Your task to perform on an android device: delete a single message in the gmail app Image 0: 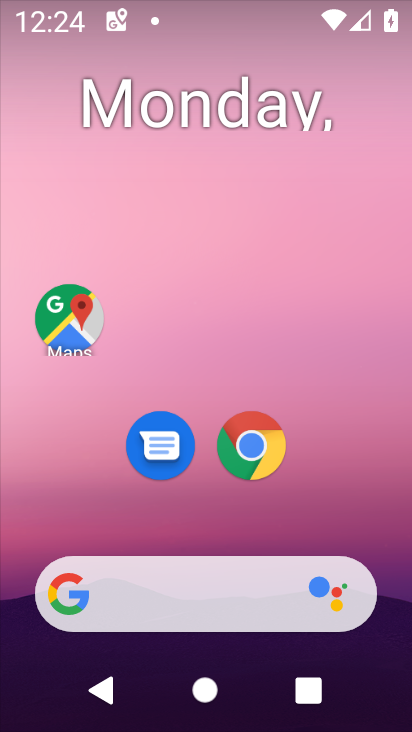
Step 0: drag from (321, 507) to (256, 17)
Your task to perform on an android device: delete a single message in the gmail app Image 1: 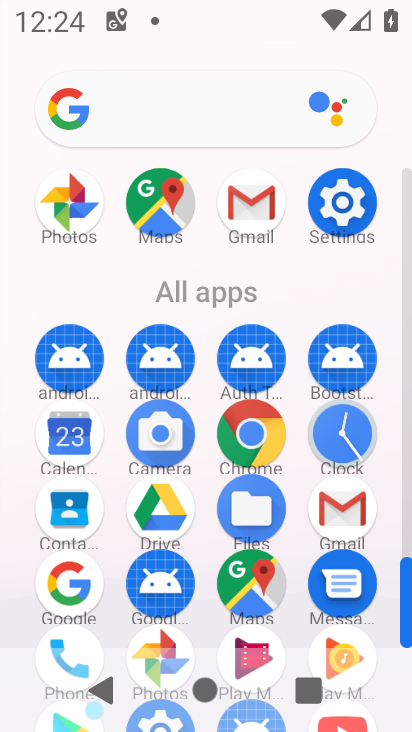
Step 1: click (251, 207)
Your task to perform on an android device: delete a single message in the gmail app Image 2: 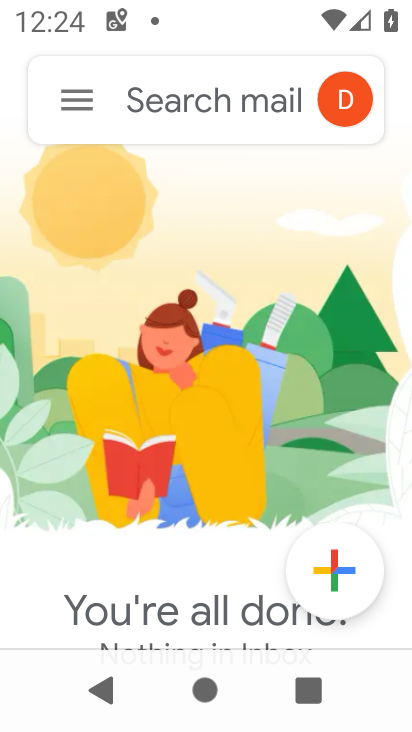
Step 2: click (85, 102)
Your task to perform on an android device: delete a single message in the gmail app Image 3: 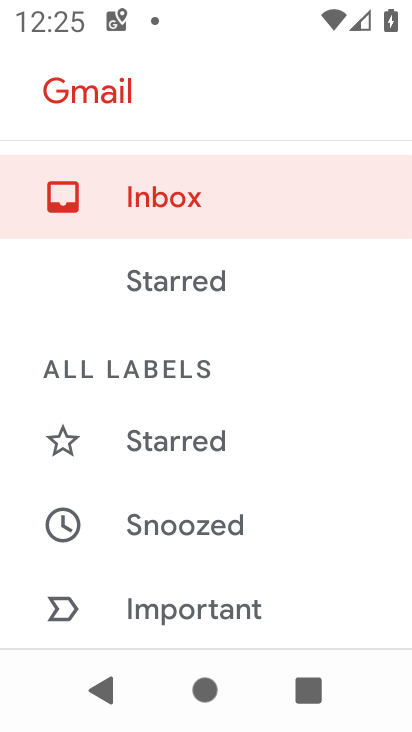
Step 3: drag from (248, 499) to (285, 323)
Your task to perform on an android device: delete a single message in the gmail app Image 4: 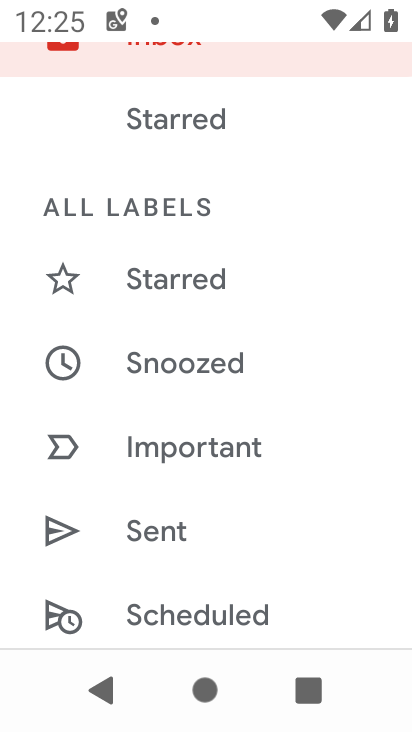
Step 4: drag from (201, 492) to (236, 374)
Your task to perform on an android device: delete a single message in the gmail app Image 5: 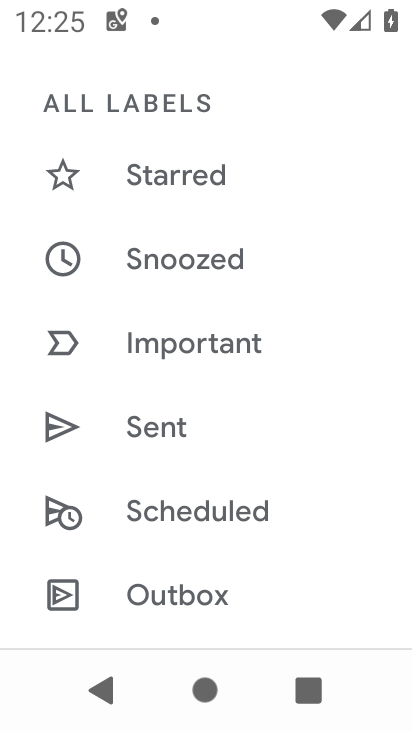
Step 5: drag from (224, 481) to (254, 385)
Your task to perform on an android device: delete a single message in the gmail app Image 6: 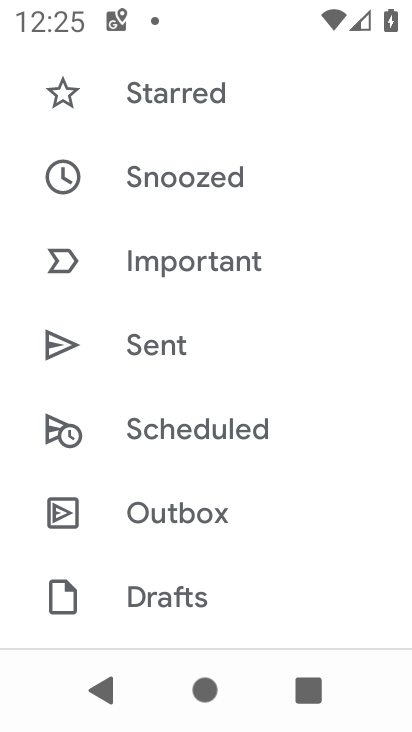
Step 6: drag from (180, 464) to (240, 373)
Your task to perform on an android device: delete a single message in the gmail app Image 7: 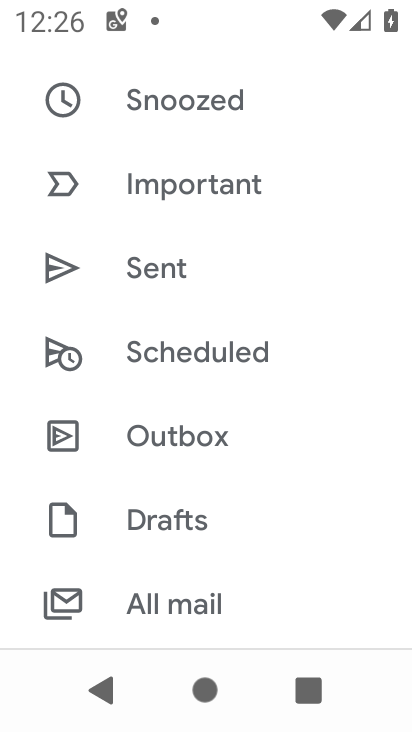
Step 7: drag from (199, 405) to (232, 339)
Your task to perform on an android device: delete a single message in the gmail app Image 8: 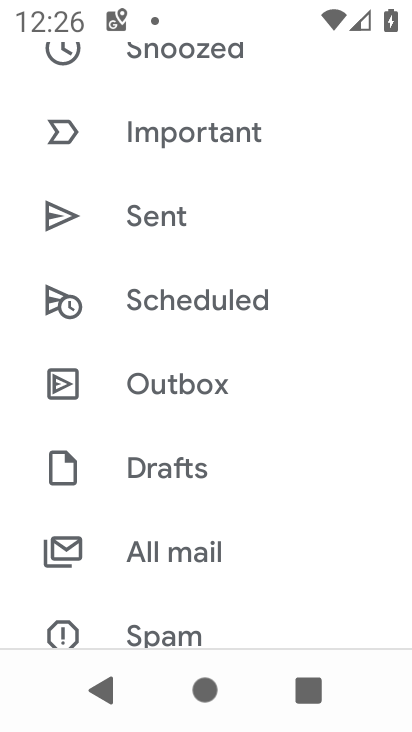
Step 8: drag from (195, 426) to (253, 337)
Your task to perform on an android device: delete a single message in the gmail app Image 9: 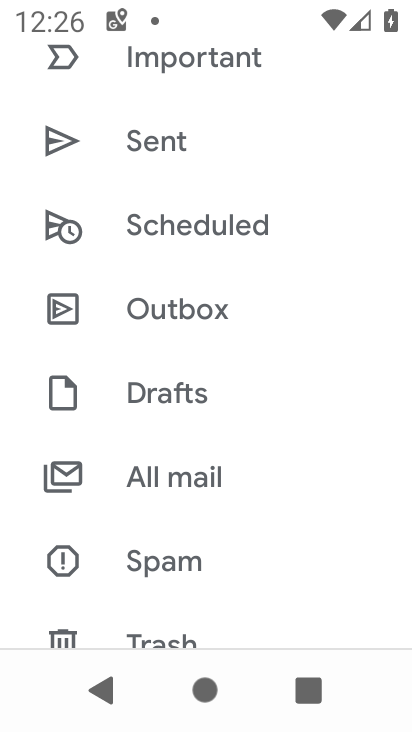
Step 9: drag from (190, 378) to (208, 324)
Your task to perform on an android device: delete a single message in the gmail app Image 10: 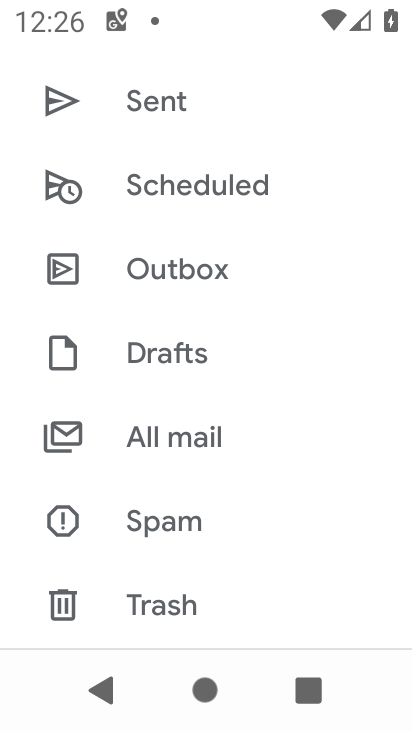
Step 10: drag from (157, 401) to (205, 329)
Your task to perform on an android device: delete a single message in the gmail app Image 11: 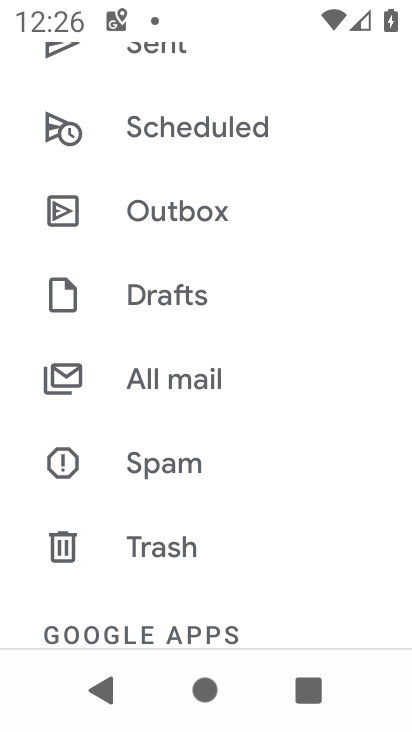
Step 11: drag from (188, 511) to (222, 426)
Your task to perform on an android device: delete a single message in the gmail app Image 12: 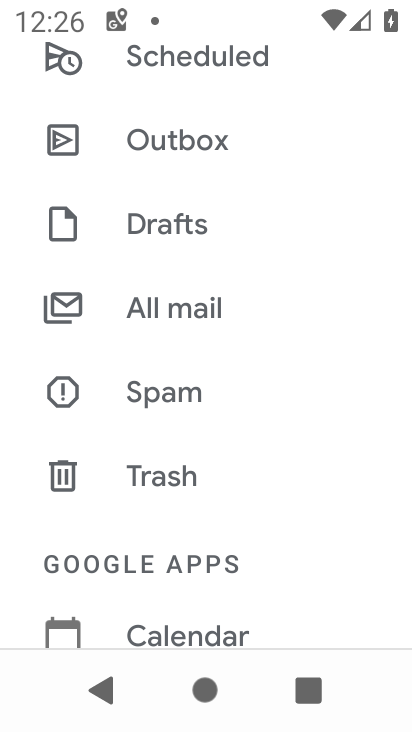
Step 12: drag from (147, 516) to (193, 419)
Your task to perform on an android device: delete a single message in the gmail app Image 13: 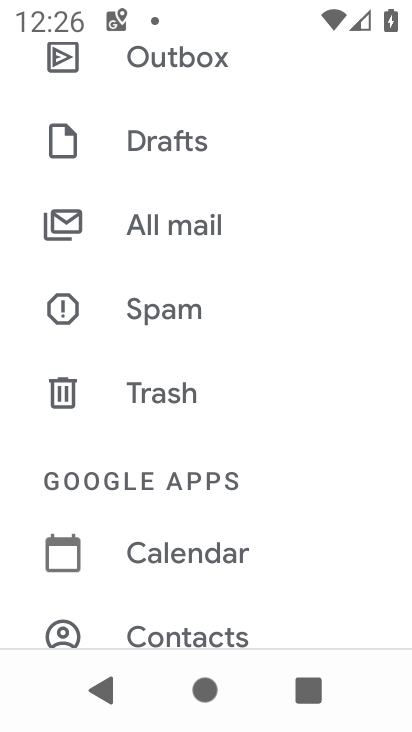
Step 13: drag from (165, 501) to (218, 390)
Your task to perform on an android device: delete a single message in the gmail app Image 14: 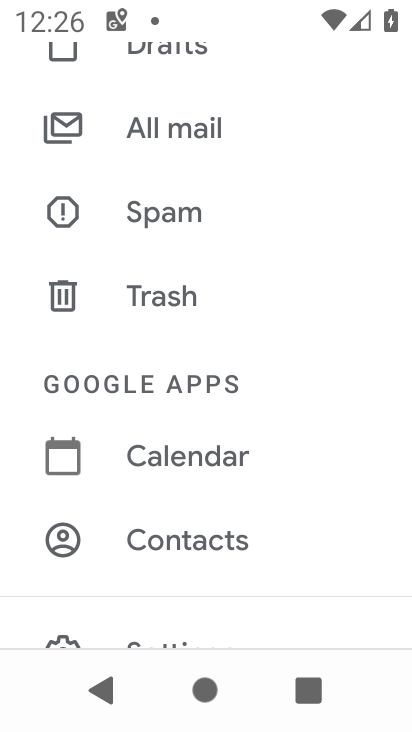
Step 14: drag from (169, 509) to (234, 386)
Your task to perform on an android device: delete a single message in the gmail app Image 15: 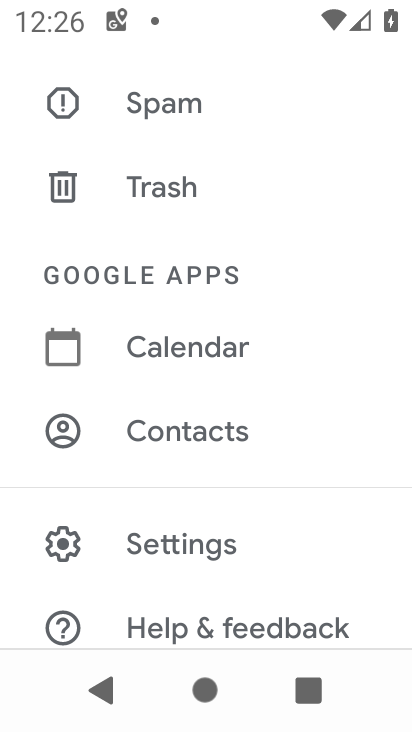
Step 15: drag from (163, 523) to (230, 404)
Your task to perform on an android device: delete a single message in the gmail app Image 16: 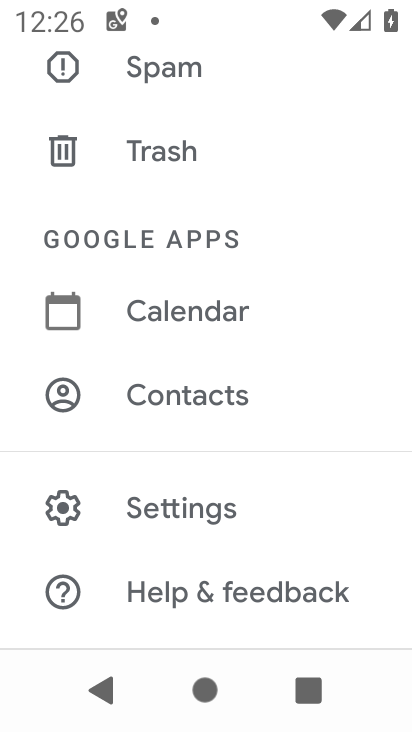
Step 16: drag from (261, 257) to (243, 449)
Your task to perform on an android device: delete a single message in the gmail app Image 17: 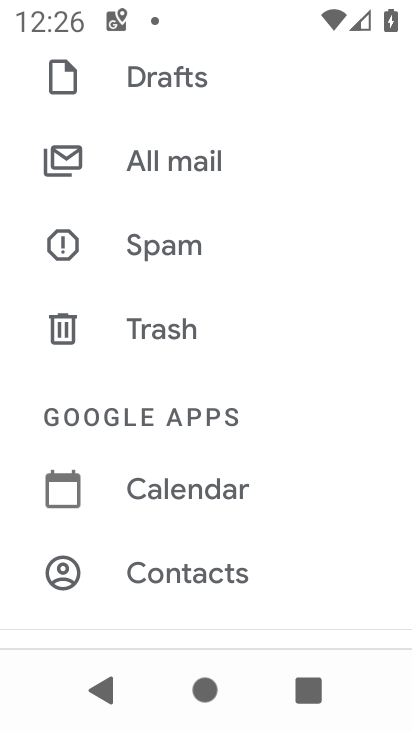
Step 17: drag from (224, 186) to (227, 332)
Your task to perform on an android device: delete a single message in the gmail app Image 18: 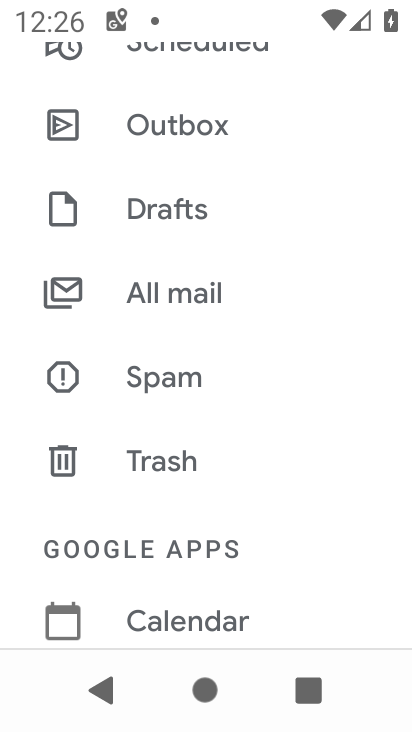
Step 18: drag from (253, 238) to (257, 410)
Your task to perform on an android device: delete a single message in the gmail app Image 19: 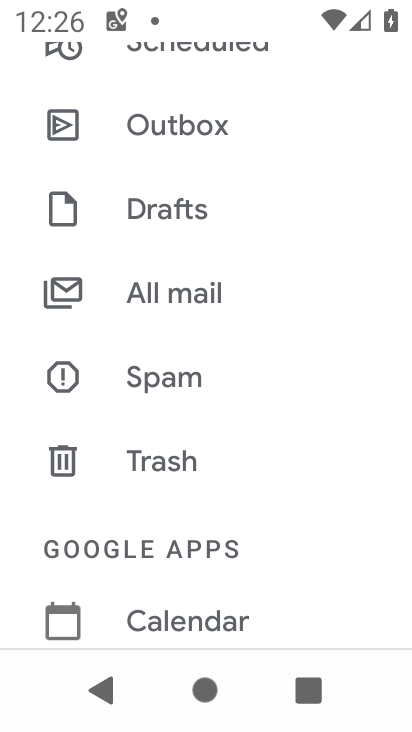
Step 19: drag from (261, 267) to (278, 435)
Your task to perform on an android device: delete a single message in the gmail app Image 20: 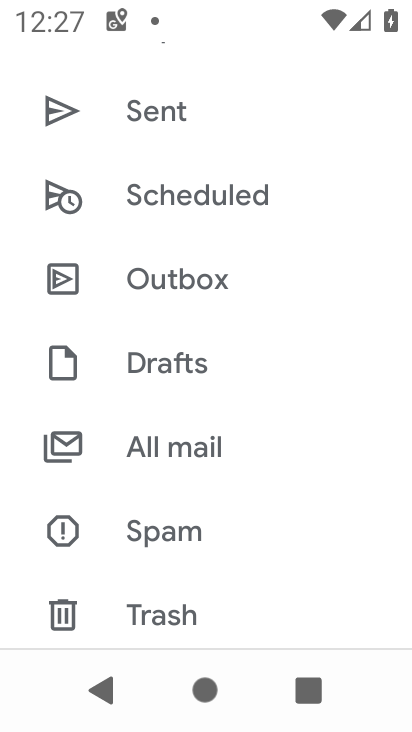
Step 20: drag from (261, 285) to (257, 392)
Your task to perform on an android device: delete a single message in the gmail app Image 21: 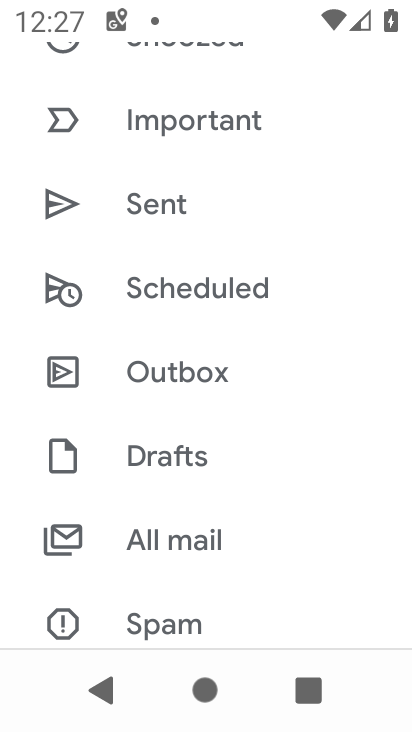
Step 21: click (183, 532)
Your task to perform on an android device: delete a single message in the gmail app Image 22: 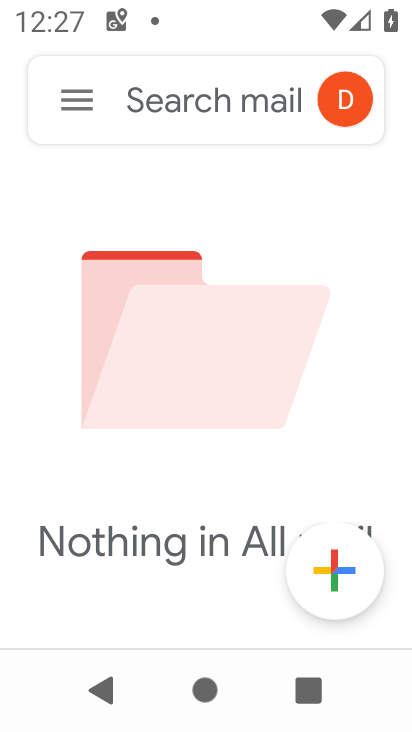
Step 22: task complete